Your task to perform on an android device: uninstall "Google Play Games" Image 0: 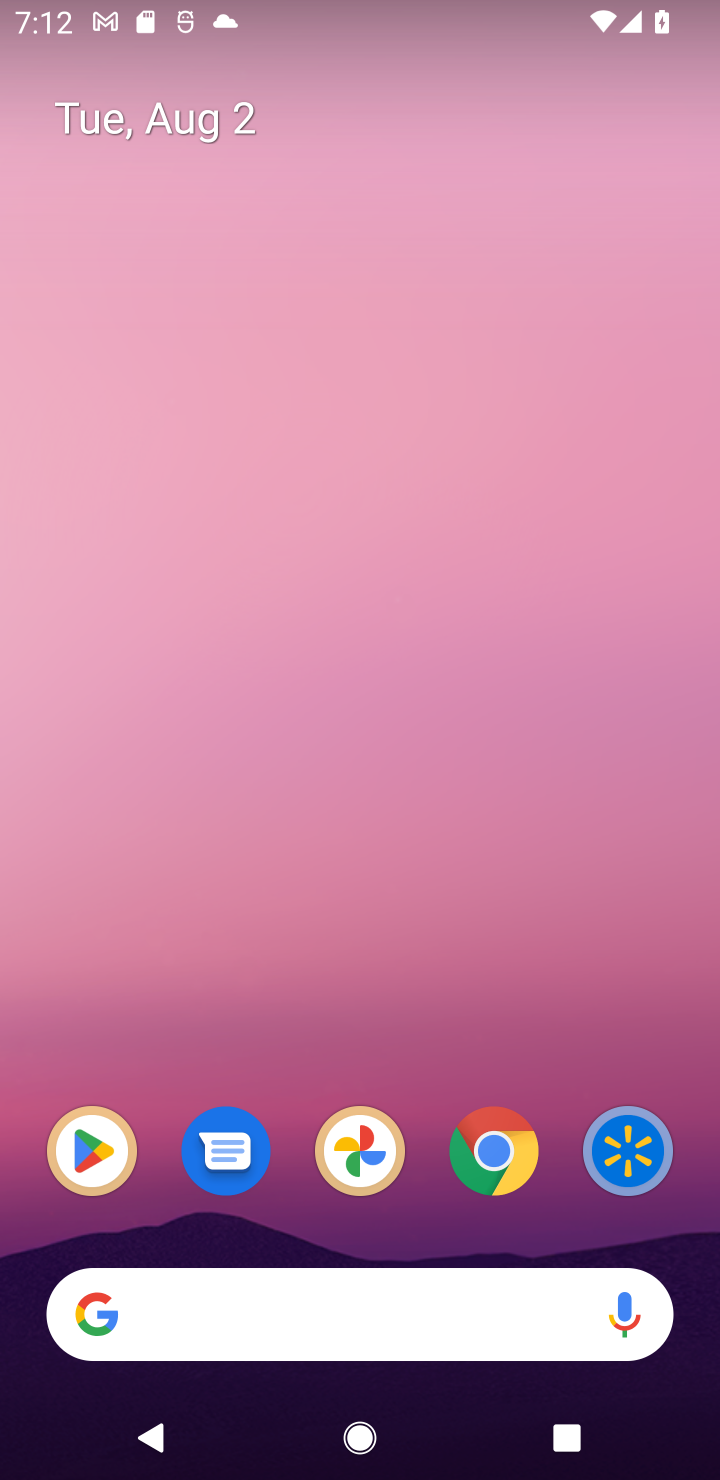
Step 0: click (74, 1148)
Your task to perform on an android device: uninstall "Google Play Games" Image 1: 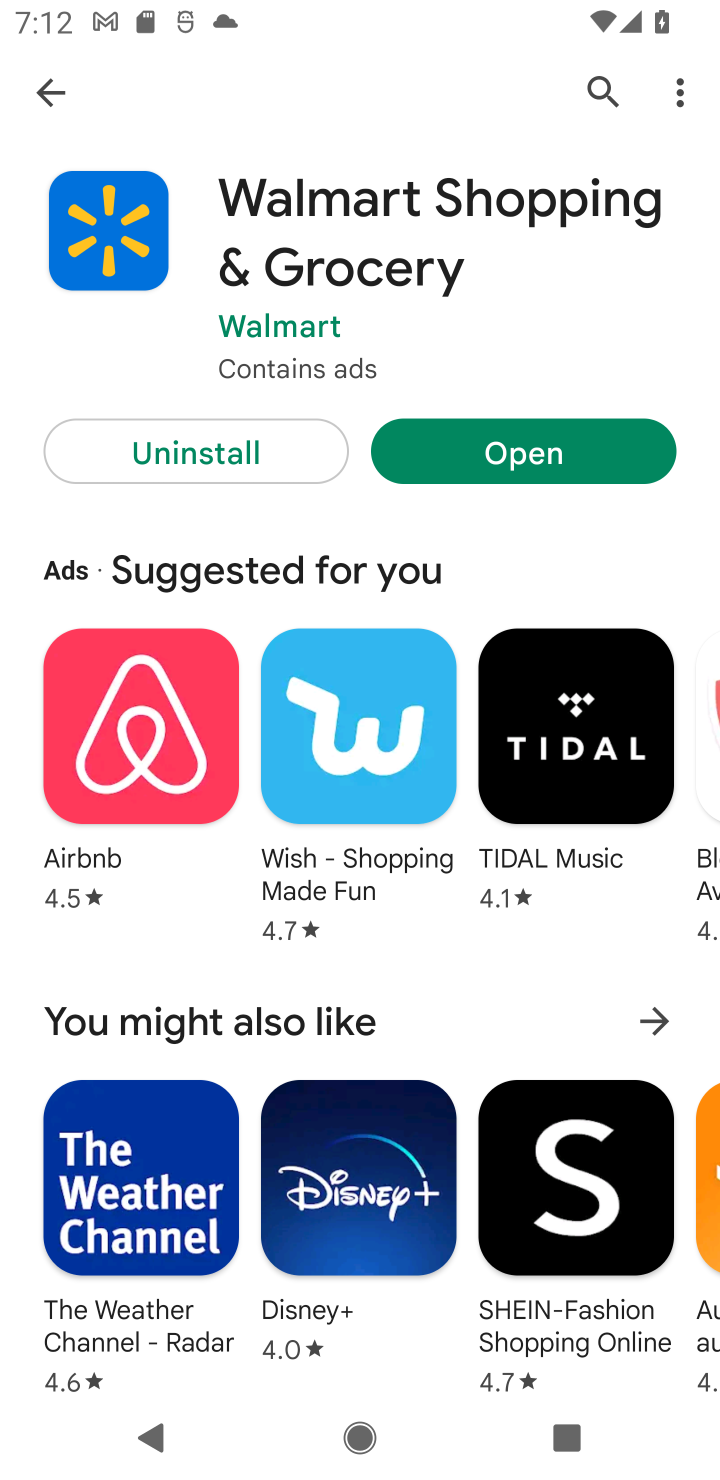
Step 1: click (661, 93)
Your task to perform on an android device: uninstall "Google Play Games" Image 2: 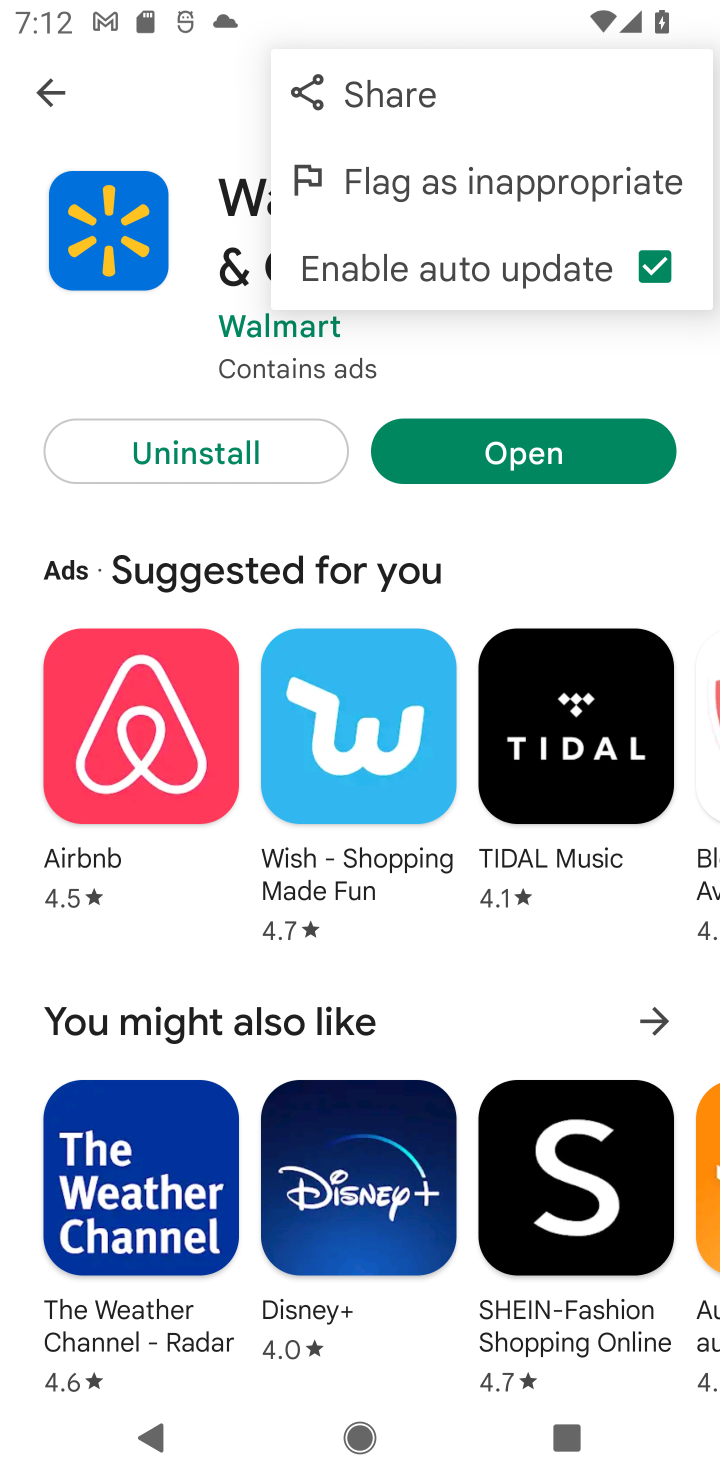
Step 2: click (181, 96)
Your task to perform on an android device: uninstall "Google Play Games" Image 3: 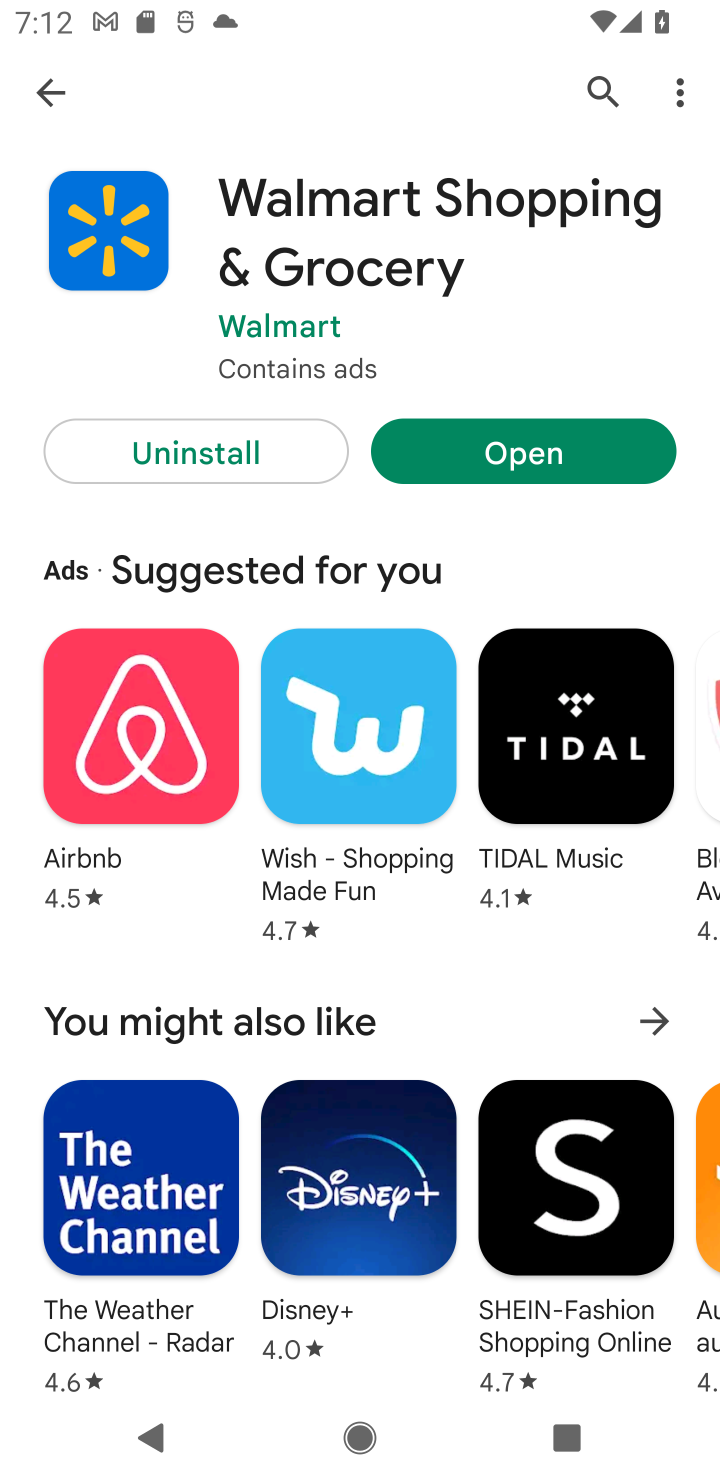
Step 3: click (596, 81)
Your task to perform on an android device: uninstall "Google Play Games" Image 4: 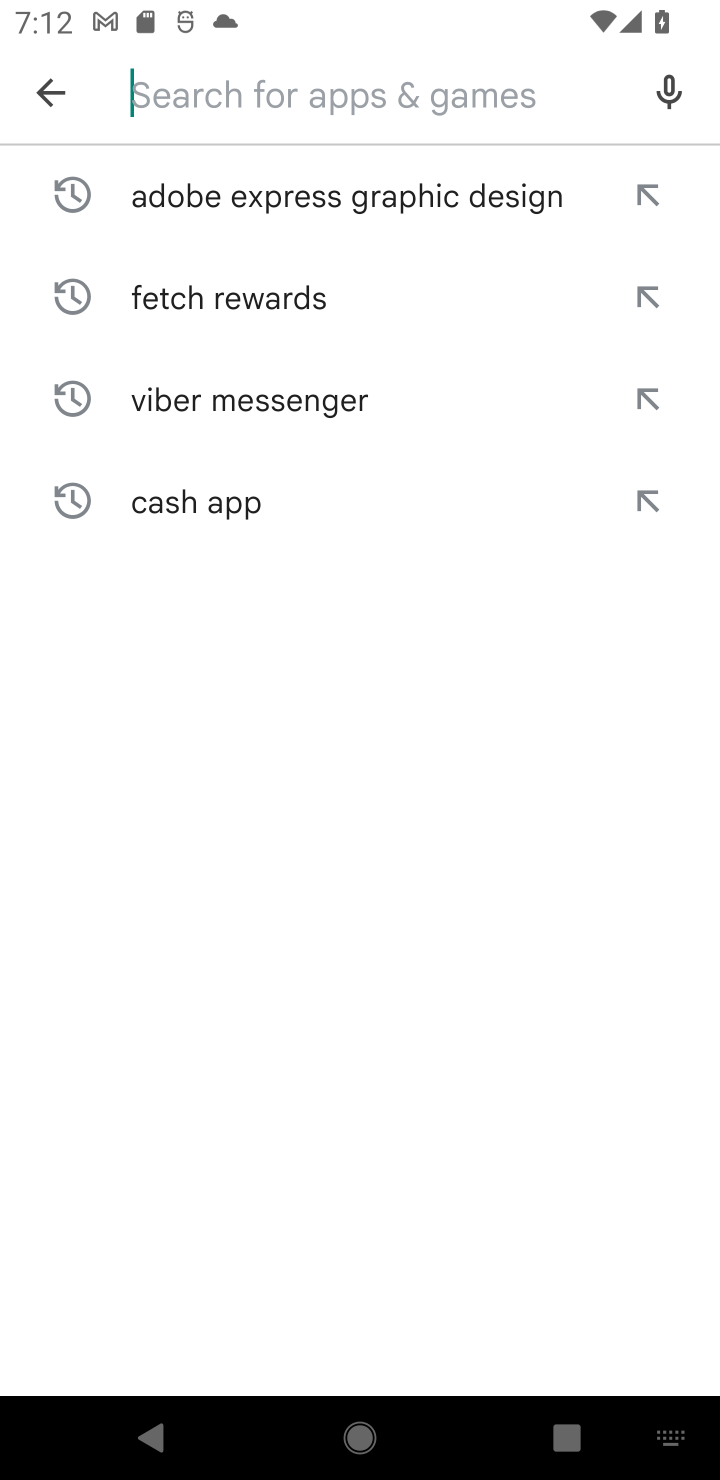
Step 4: type "Google Play Games"
Your task to perform on an android device: uninstall "Google Play Games" Image 5: 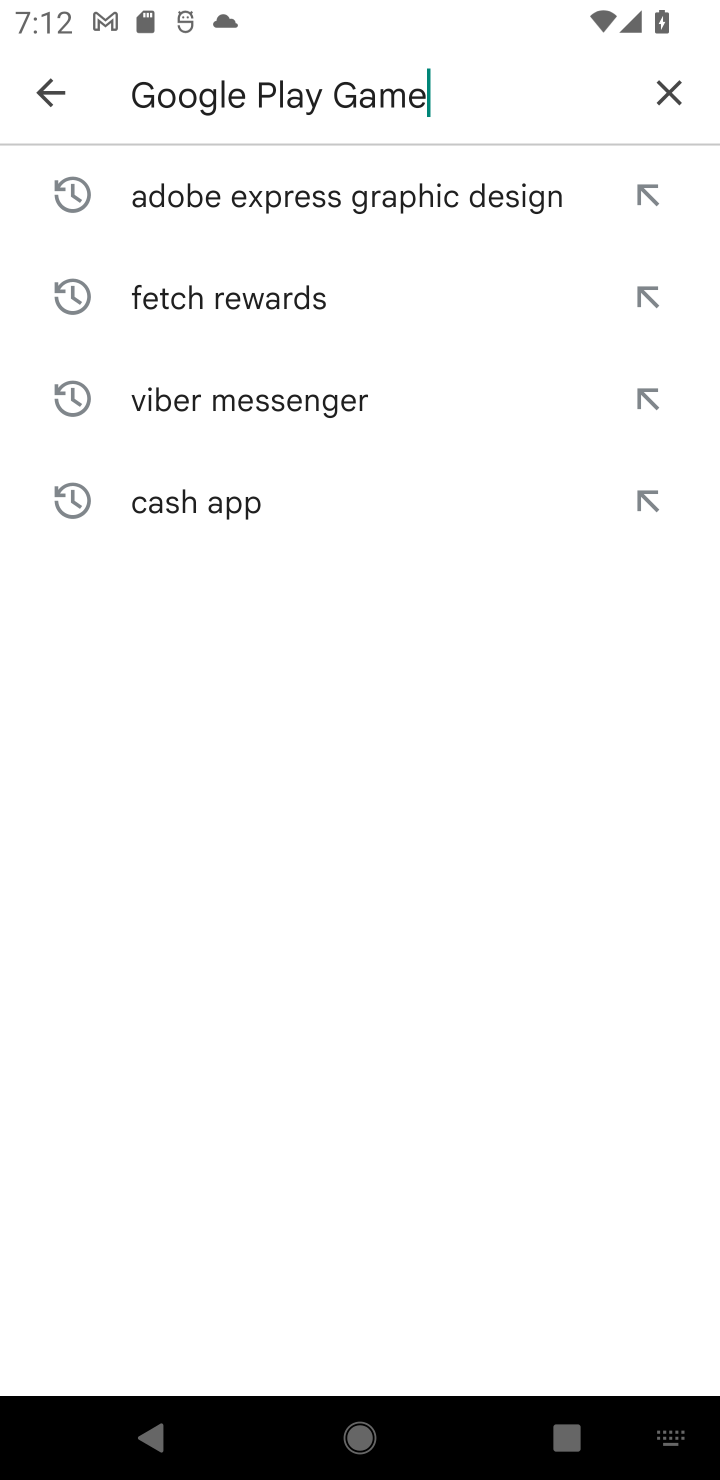
Step 5: type ""
Your task to perform on an android device: uninstall "Google Play Games" Image 6: 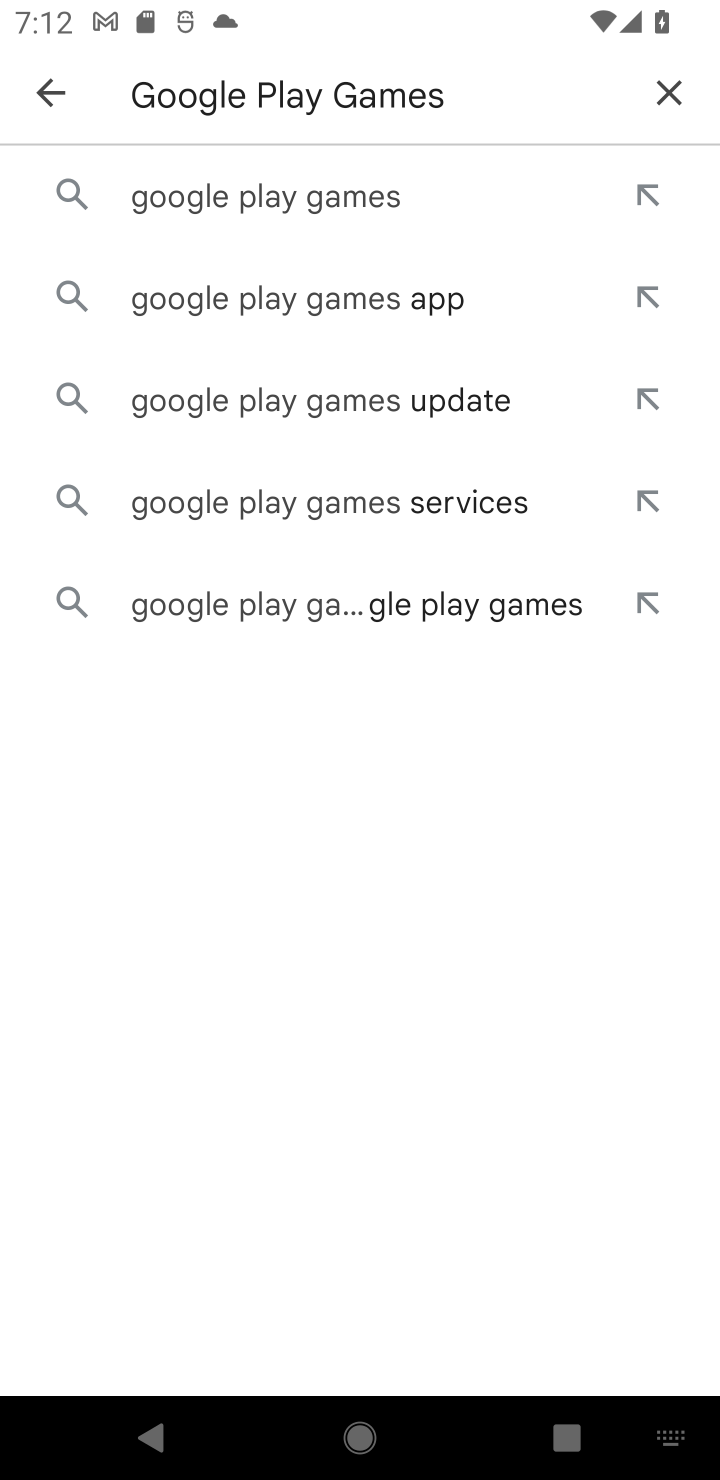
Step 6: click (389, 198)
Your task to perform on an android device: uninstall "Google Play Games" Image 7: 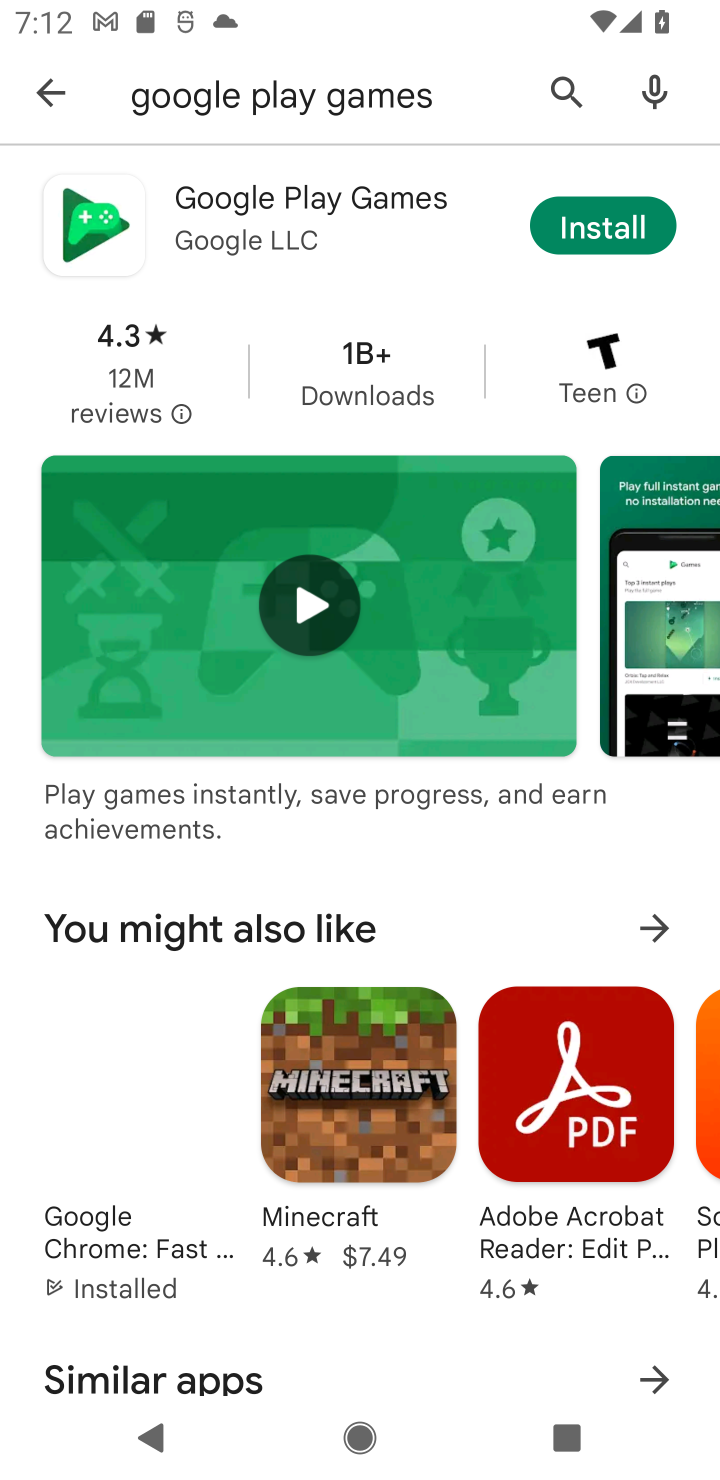
Step 7: task complete